Your task to perform on an android device: turn off location Image 0: 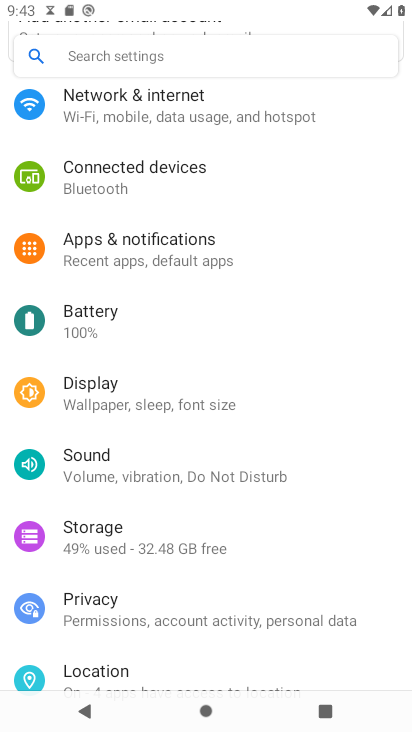
Step 0: press home button
Your task to perform on an android device: turn off location Image 1: 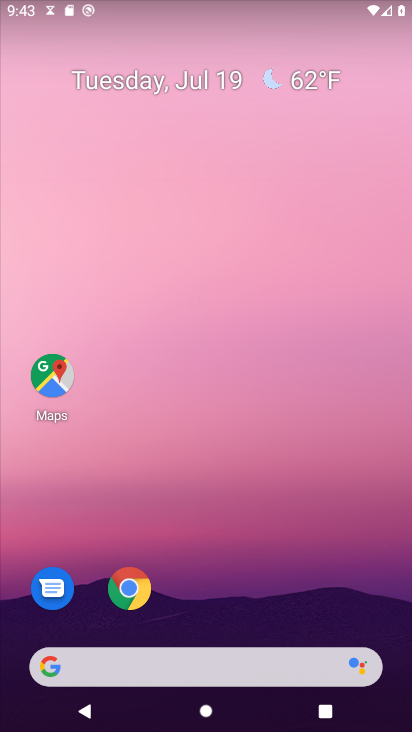
Step 1: drag from (190, 593) to (192, 148)
Your task to perform on an android device: turn off location Image 2: 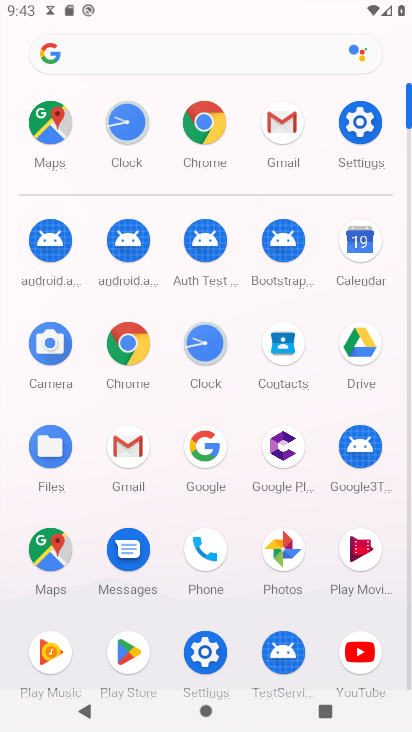
Step 2: click (358, 132)
Your task to perform on an android device: turn off location Image 3: 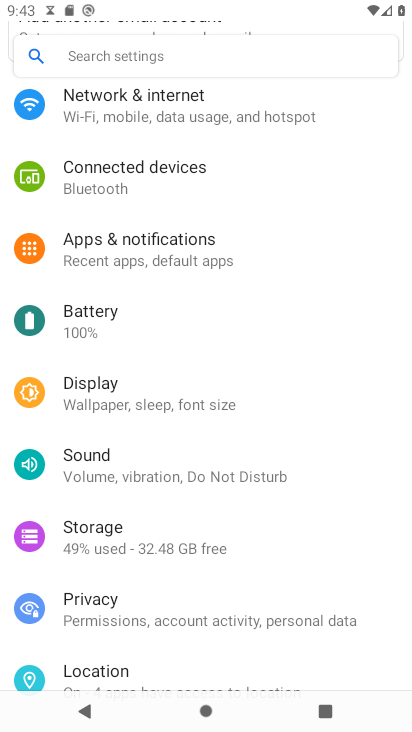
Step 3: click (64, 683)
Your task to perform on an android device: turn off location Image 4: 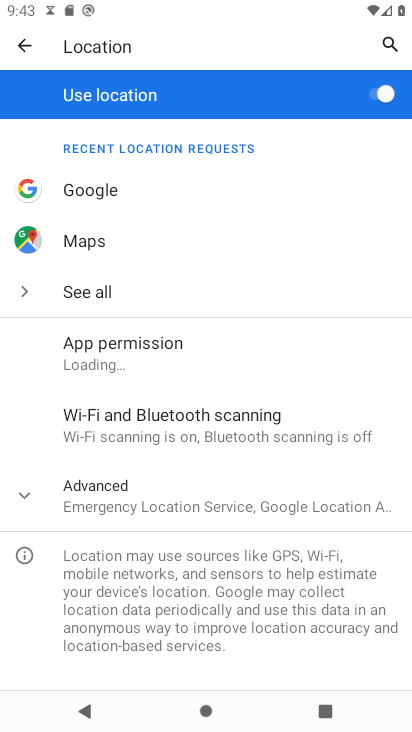
Step 4: click (374, 95)
Your task to perform on an android device: turn off location Image 5: 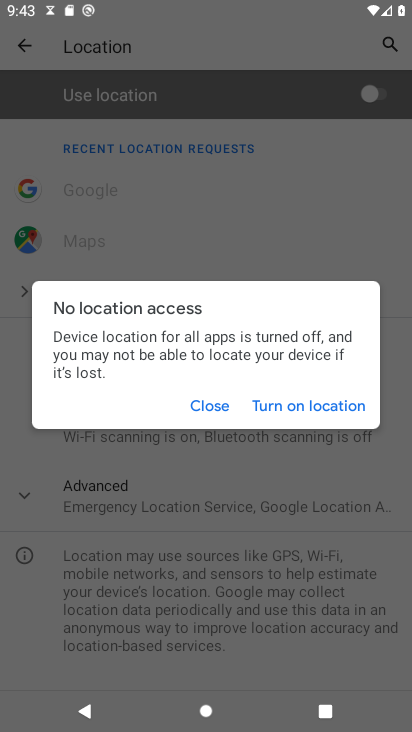
Step 5: task complete